Your task to perform on an android device: install app "Speedtest by Ookla" Image 0: 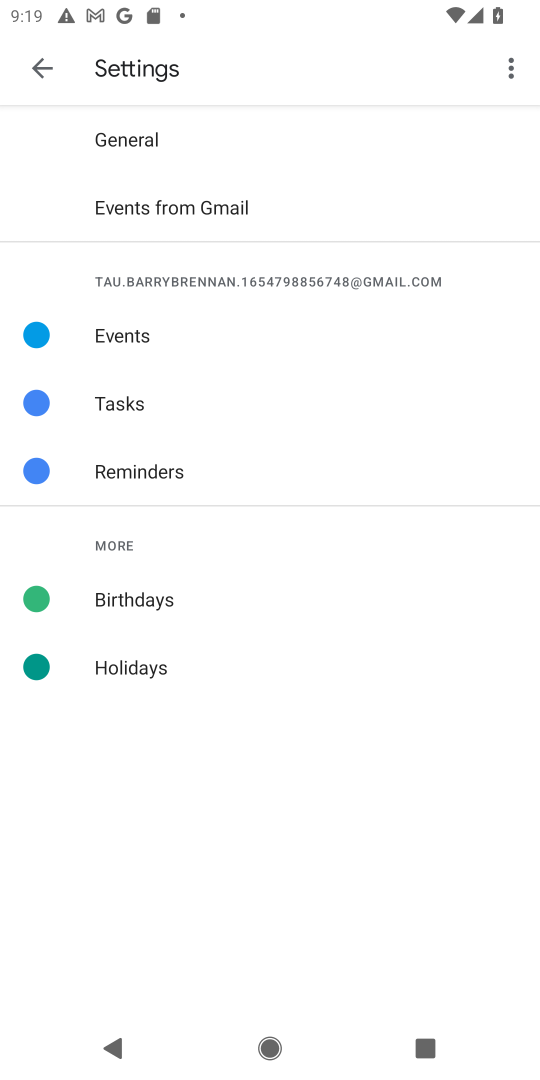
Step 0: press home button
Your task to perform on an android device: install app "Speedtest by Ookla" Image 1: 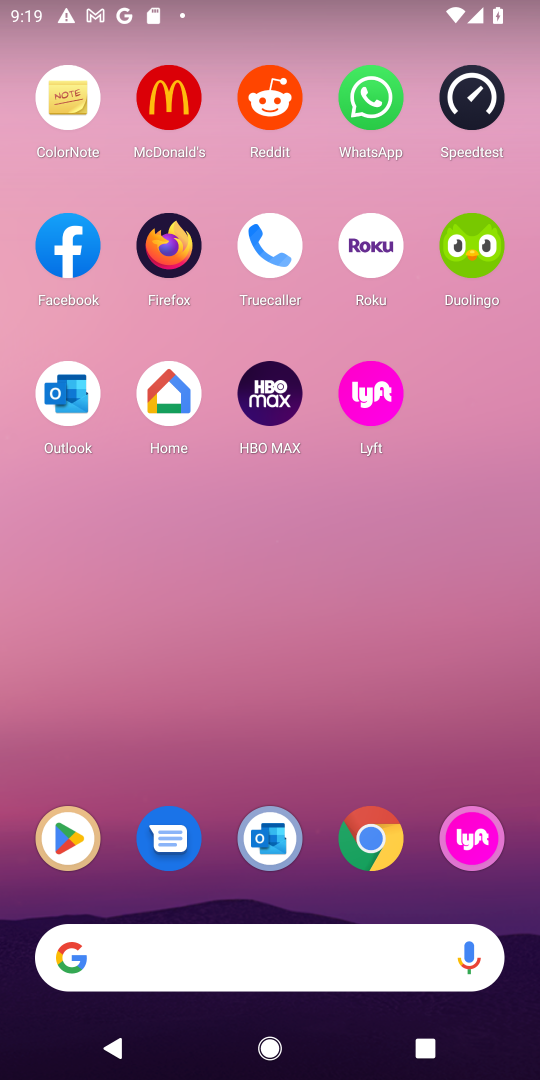
Step 1: drag from (334, 540) to (340, 75)
Your task to perform on an android device: install app "Speedtest by Ookla" Image 2: 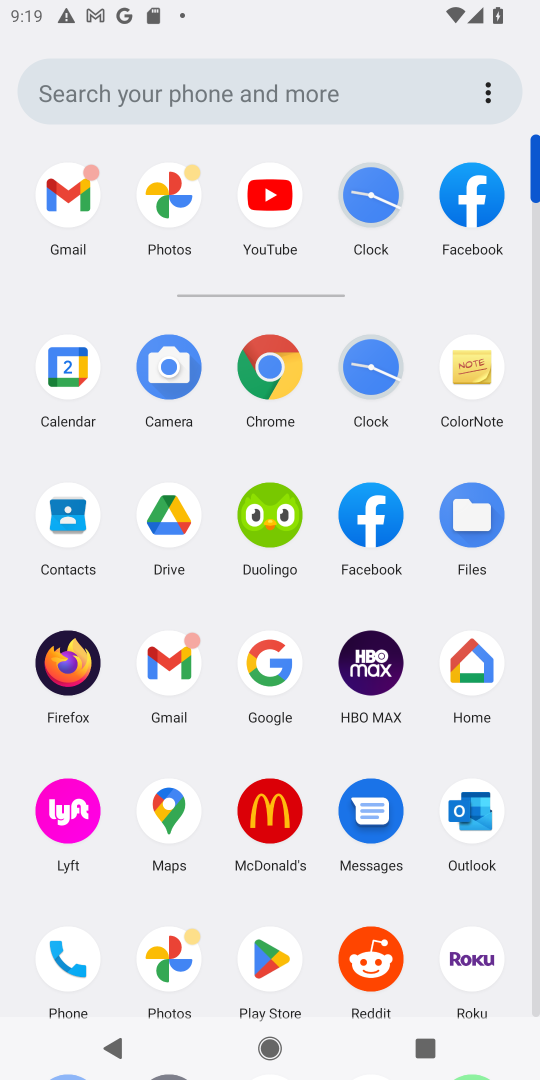
Step 2: click (269, 961)
Your task to perform on an android device: install app "Speedtest by Ookla" Image 3: 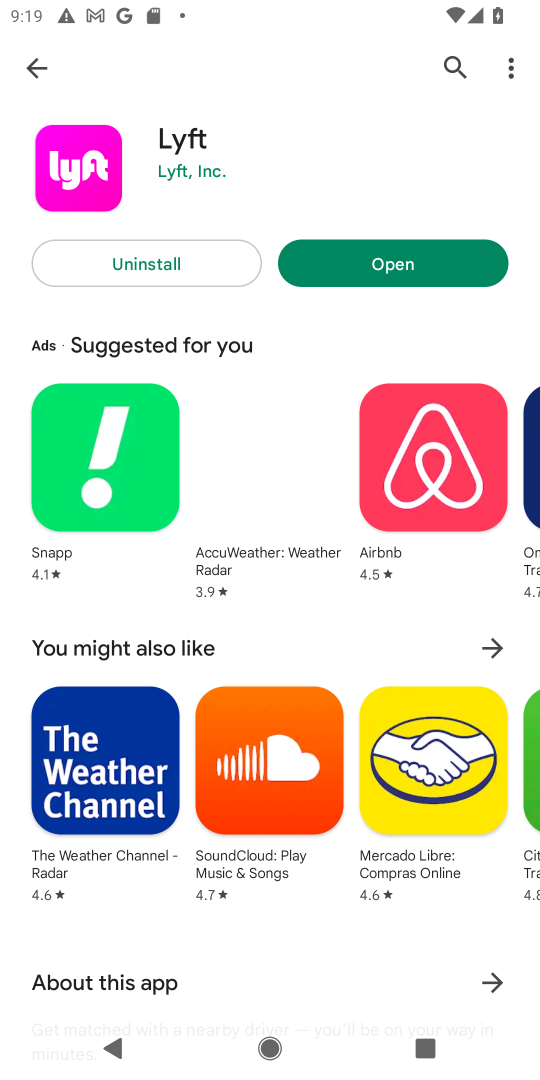
Step 3: click (454, 61)
Your task to perform on an android device: install app "Speedtest by Ookla" Image 4: 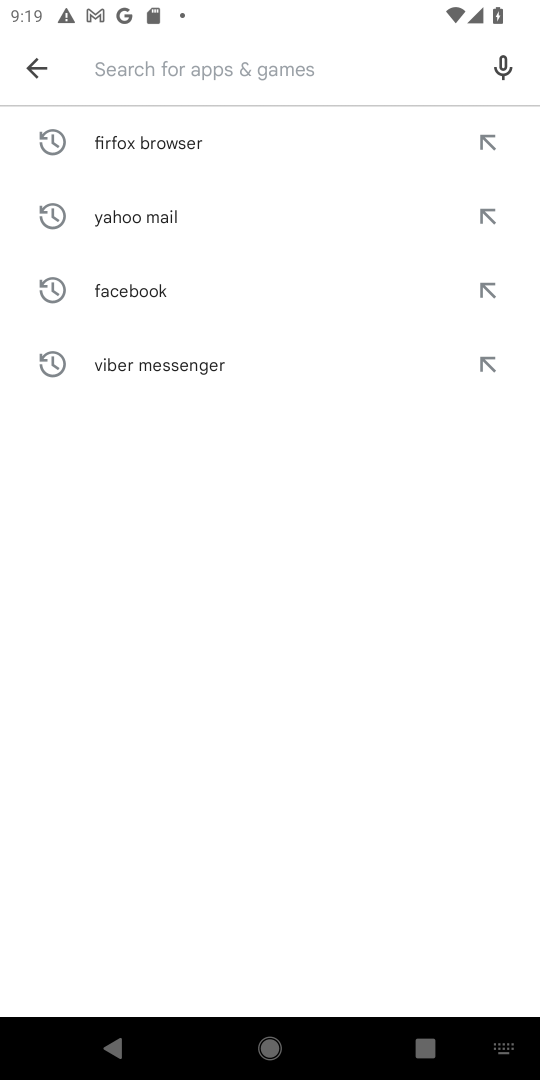
Step 4: click (342, 73)
Your task to perform on an android device: install app "Speedtest by Ookla" Image 5: 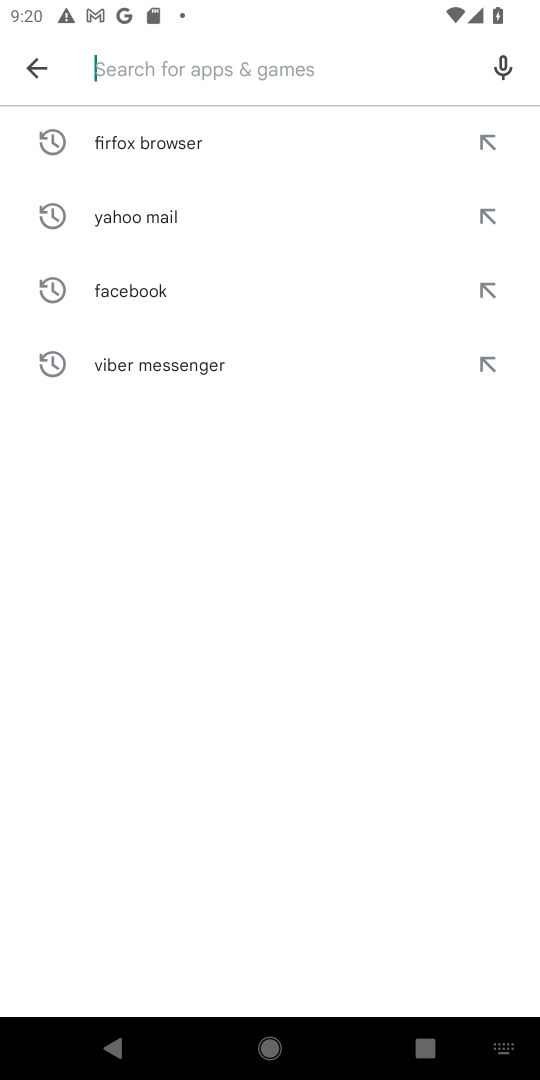
Step 5: type "speedtest by ookla"
Your task to perform on an android device: install app "Speedtest by Ookla" Image 6: 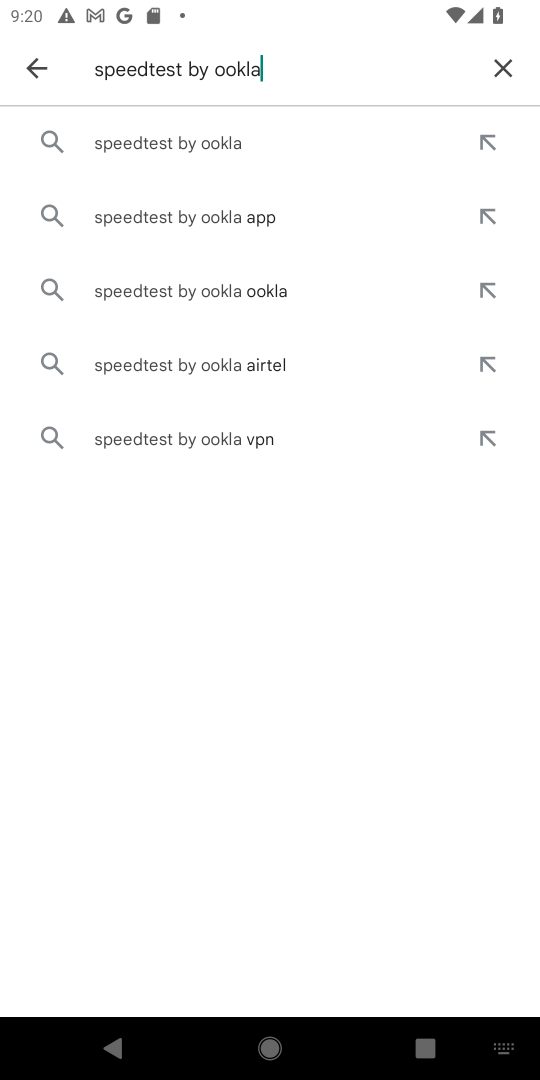
Step 6: click (226, 140)
Your task to perform on an android device: install app "Speedtest by Ookla" Image 7: 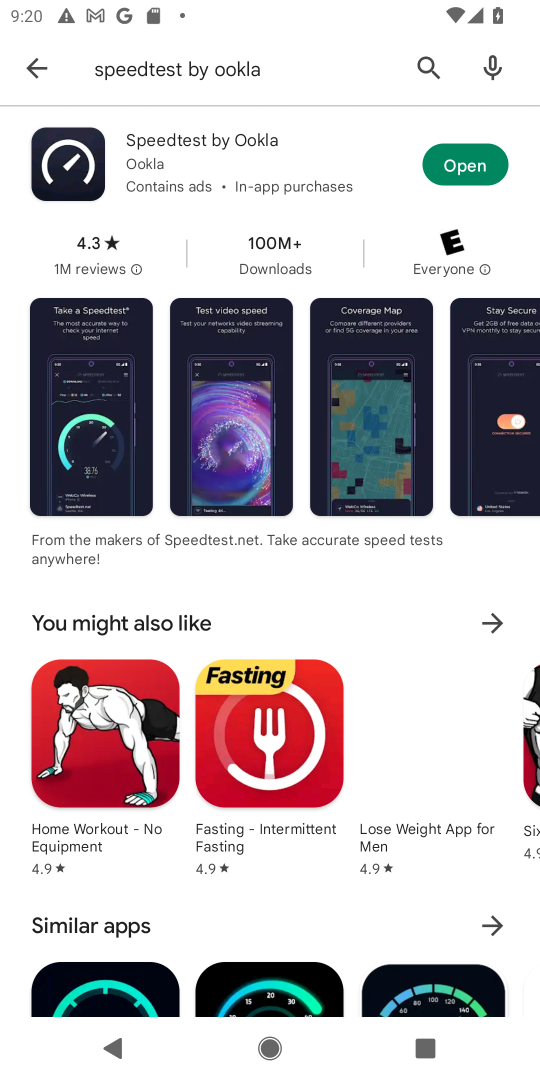
Step 7: task complete